Your task to perform on an android device: Open Chrome and go to the settings page Image 0: 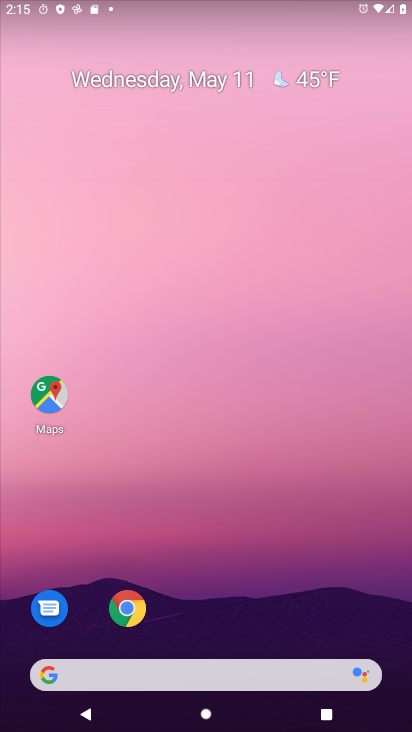
Step 0: click (209, 611)
Your task to perform on an android device: Open Chrome and go to the settings page Image 1: 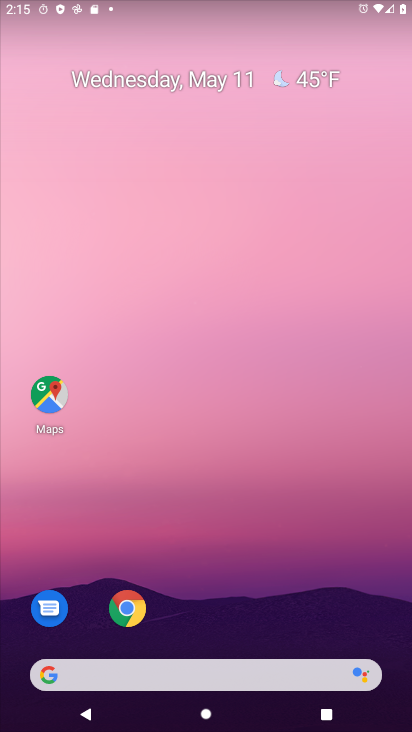
Step 1: click (131, 608)
Your task to perform on an android device: Open Chrome and go to the settings page Image 2: 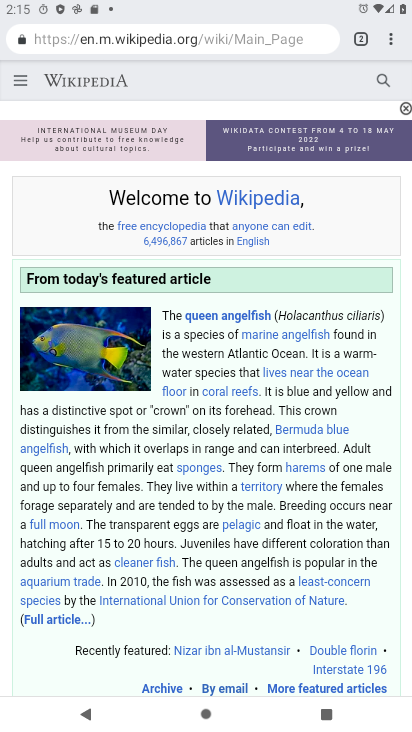
Step 2: click (385, 40)
Your task to perform on an android device: Open Chrome and go to the settings page Image 3: 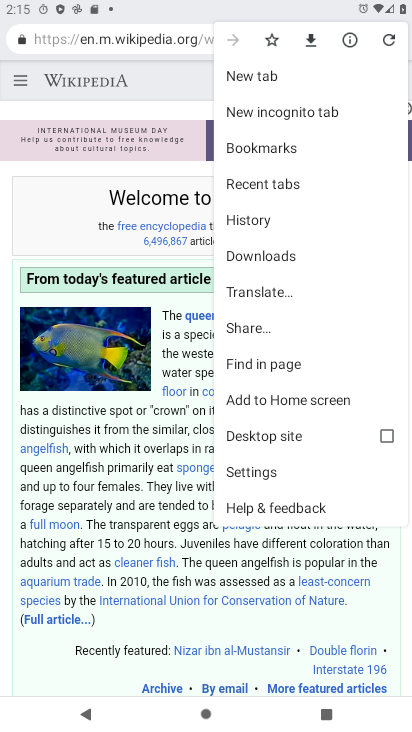
Step 3: click (280, 462)
Your task to perform on an android device: Open Chrome and go to the settings page Image 4: 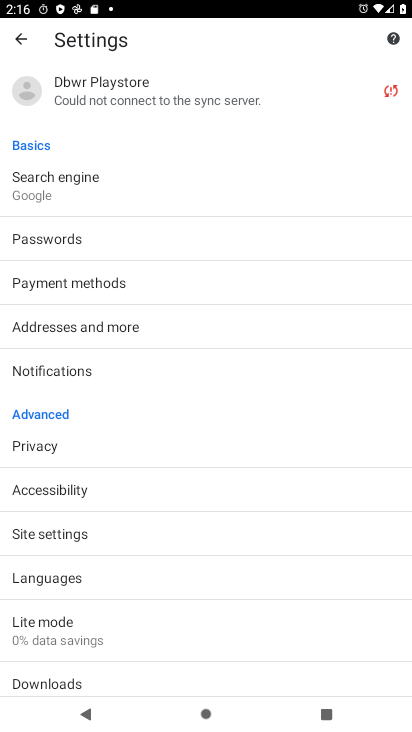
Step 4: task complete